Your task to perform on an android device: Show me popular videos on Youtube Image 0: 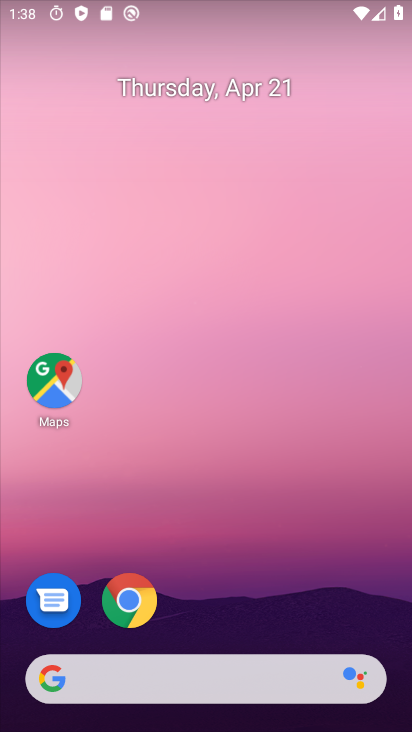
Step 0: drag from (322, 368) to (378, 79)
Your task to perform on an android device: Show me popular videos on Youtube Image 1: 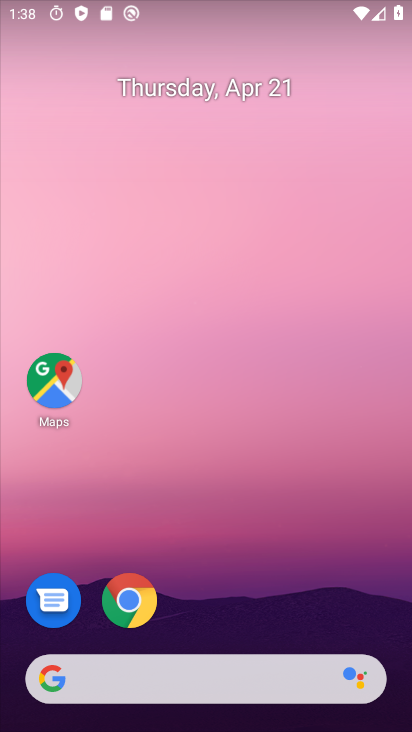
Step 1: drag from (258, 421) to (332, 32)
Your task to perform on an android device: Show me popular videos on Youtube Image 2: 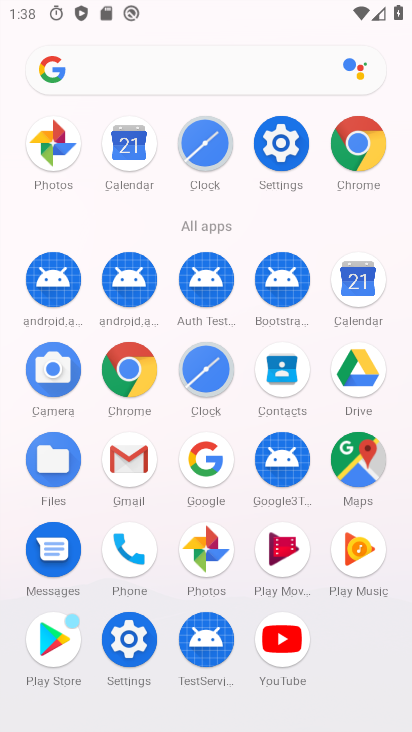
Step 2: click (284, 636)
Your task to perform on an android device: Show me popular videos on Youtube Image 3: 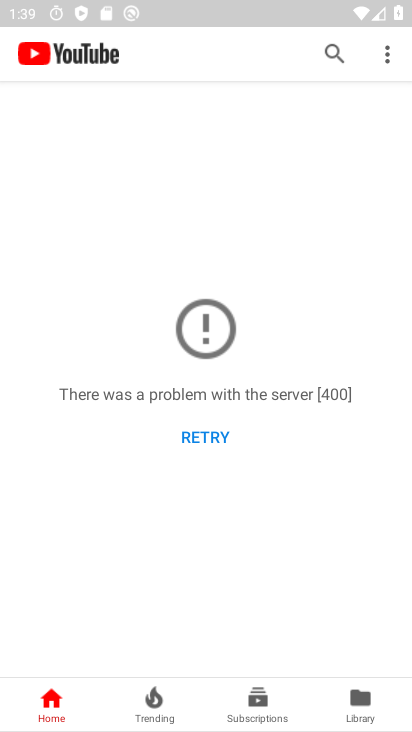
Step 3: click (356, 696)
Your task to perform on an android device: Show me popular videos on Youtube Image 4: 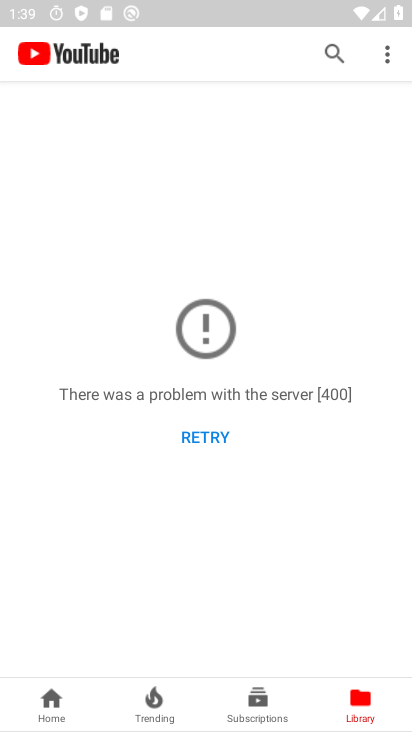
Step 4: click (250, 699)
Your task to perform on an android device: Show me popular videos on Youtube Image 5: 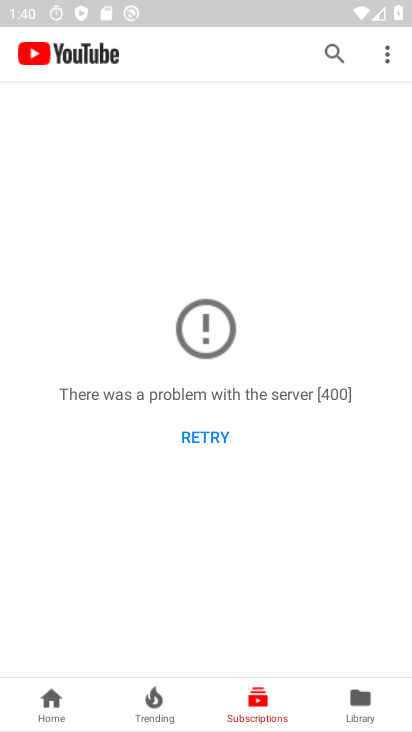
Step 5: click (361, 699)
Your task to perform on an android device: Show me popular videos on Youtube Image 6: 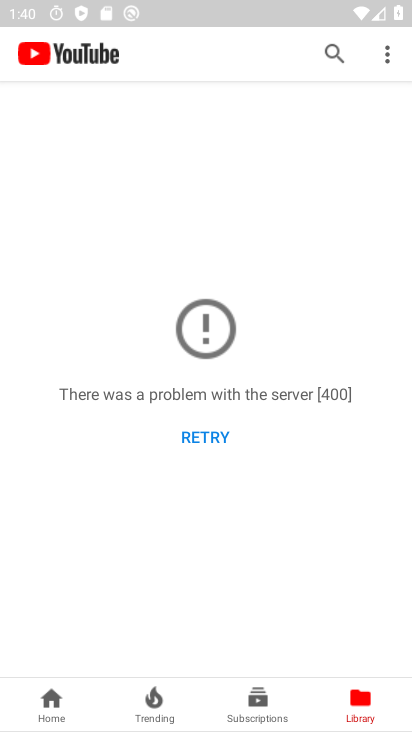
Step 6: task complete